Your task to perform on an android device: show emergency info Image 0: 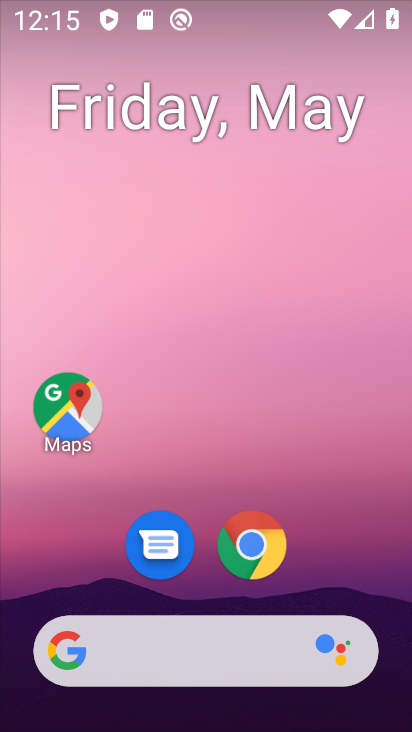
Step 0: drag from (316, 563) to (288, 4)
Your task to perform on an android device: show emergency info Image 1: 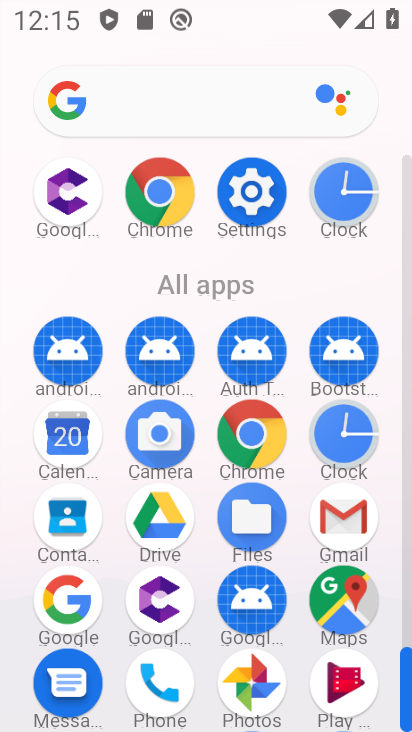
Step 1: click (244, 206)
Your task to perform on an android device: show emergency info Image 2: 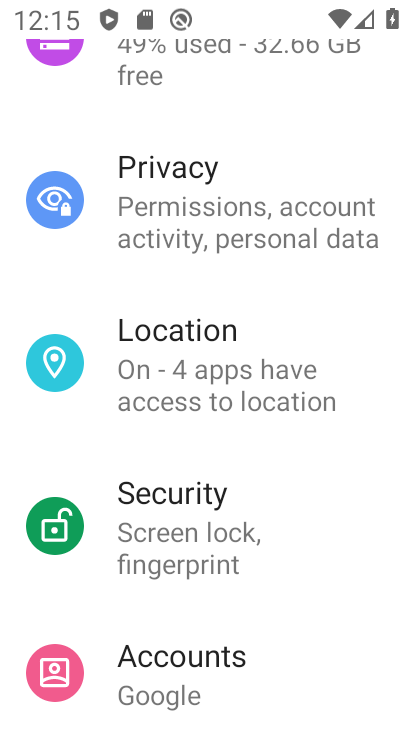
Step 2: drag from (202, 646) to (200, 204)
Your task to perform on an android device: show emergency info Image 3: 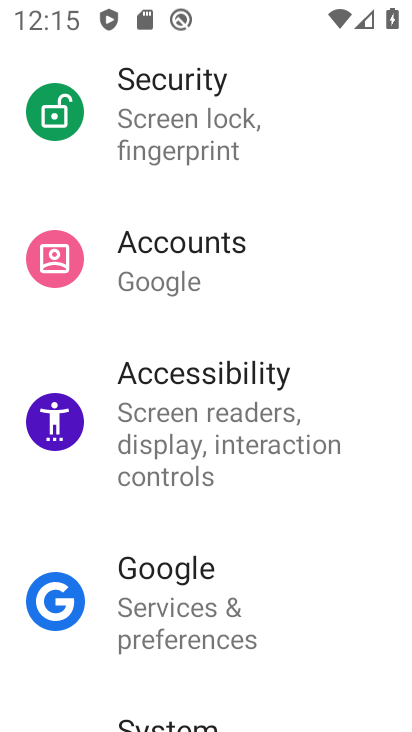
Step 3: click (196, 163)
Your task to perform on an android device: show emergency info Image 4: 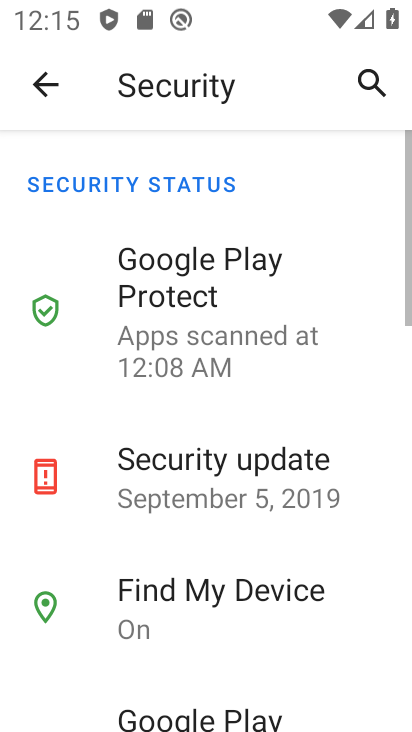
Step 4: click (38, 88)
Your task to perform on an android device: show emergency info Image 5: 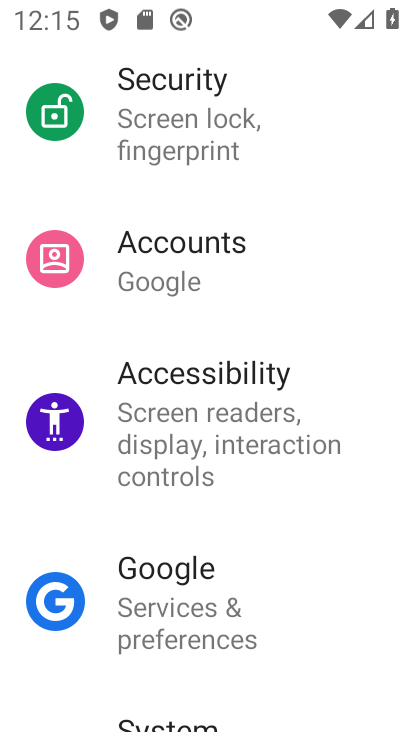
Step 5: drag from (201, 661) to (213, 126)
Your task to perform on an android device: show emergency info Image 6: 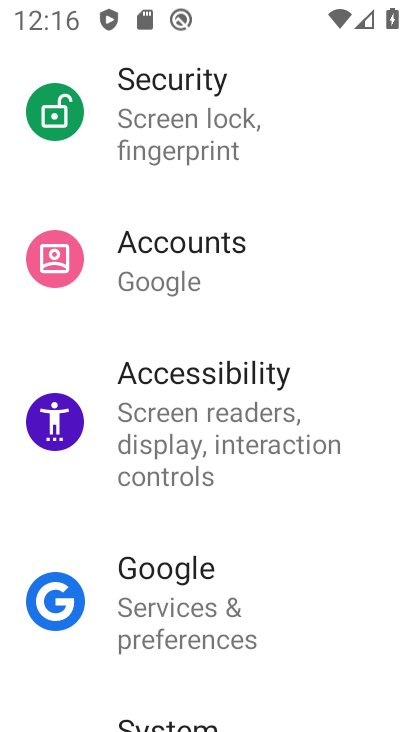
Step 6: drag from (281, 551) to (281, 153)
Your task to perform on an android device: show emergency info Image 7: 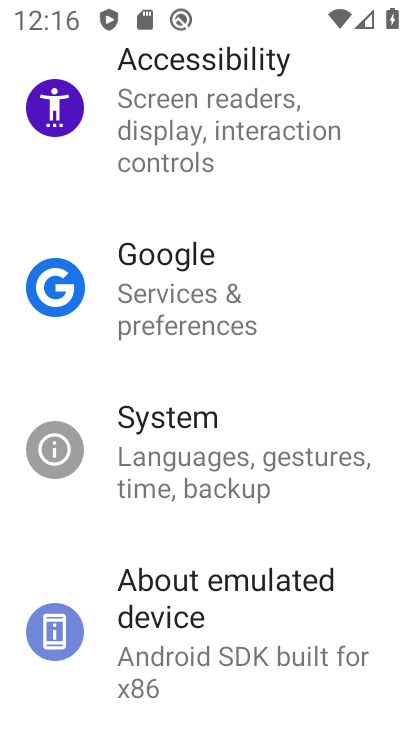
Step 7: click (187, 640)
Your task to perform on an android device: show emergency info Image 8: 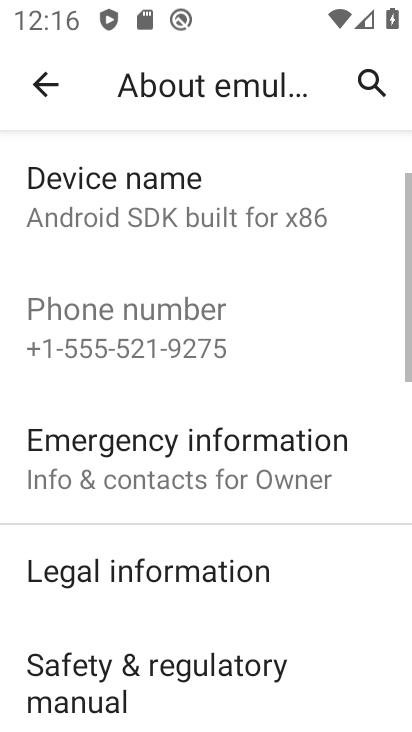
Step 8: task complete